Your task to perform on an android device: turn on location history Image 0: 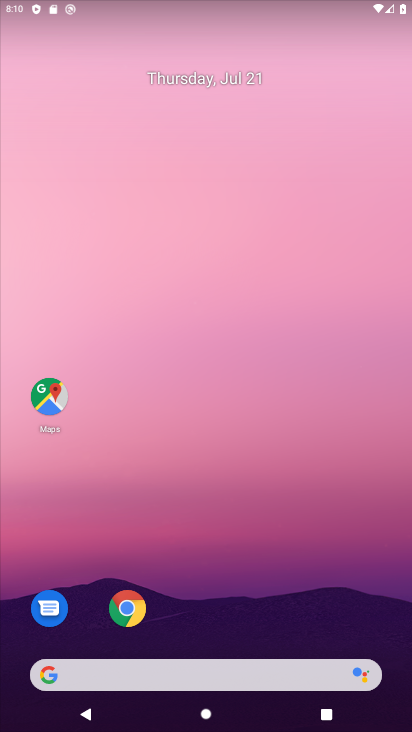
Step 0: drag from (23, 697) to (132, 190)
Your task to perform on an android device: turn on location history Image 1: 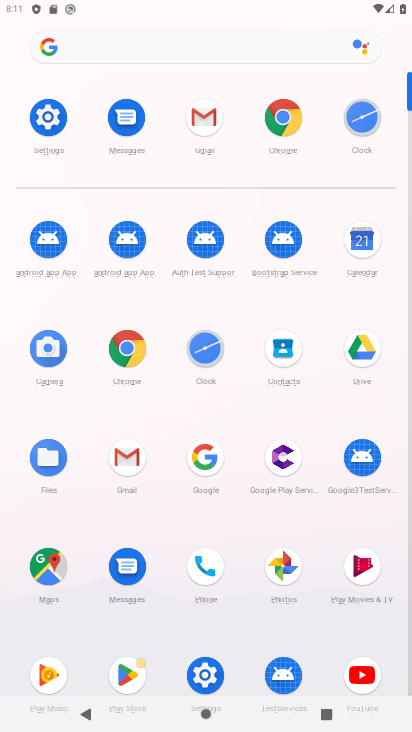
Step 1: click (195, 668)
Your task to perform on an android device: turn on location history Image 2: 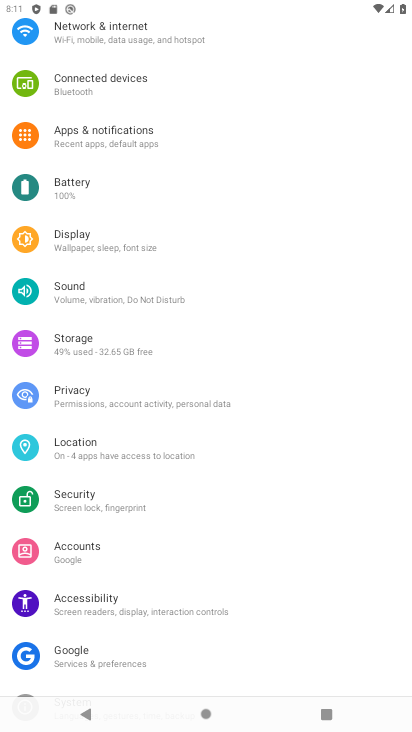
Step 2: click (89, 442)
Your task to perform on an android device: turn on location history Image 3: 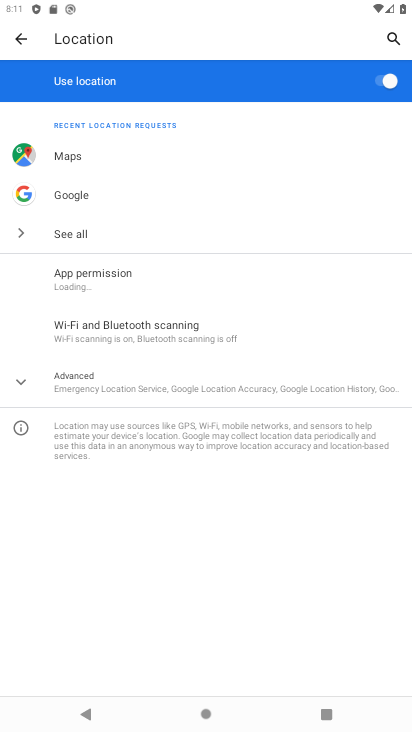
Step 3: click (118, 393)
Your task to perform on an android device: turn on location history Image 4: 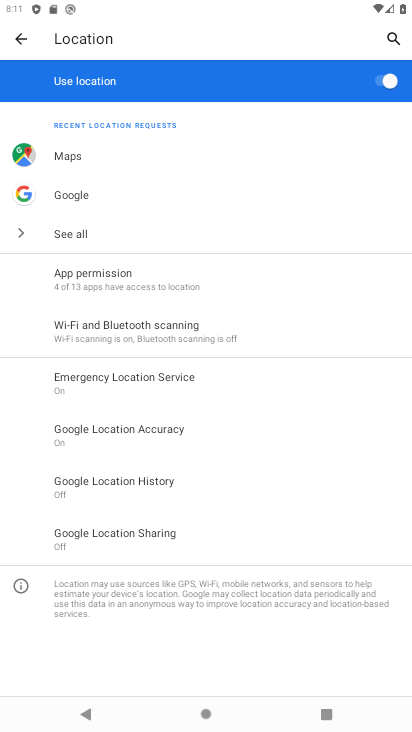
Step 4: click (115, 482)
Your task to perform on an android device: turn on location history Image 5: 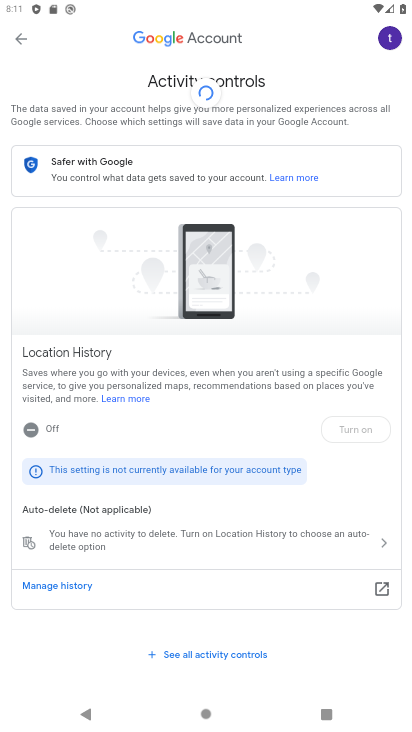
Step 5: click (351, 427)
Your task to perform on an android device: turn on location history Image 6: 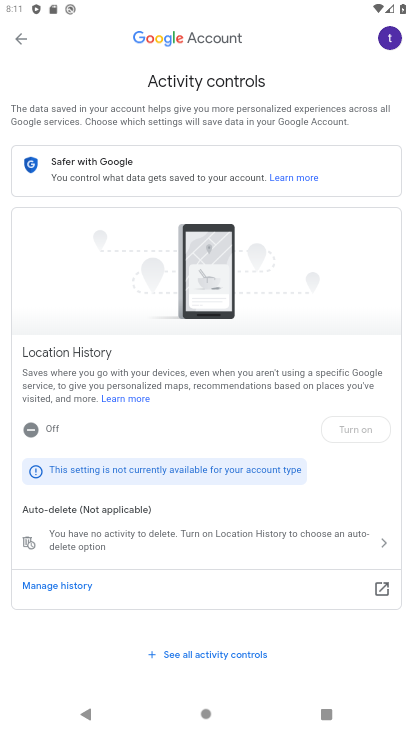
Step 6: click (333, 420)
Your task to perform on an android device: turn on location history Image 7: 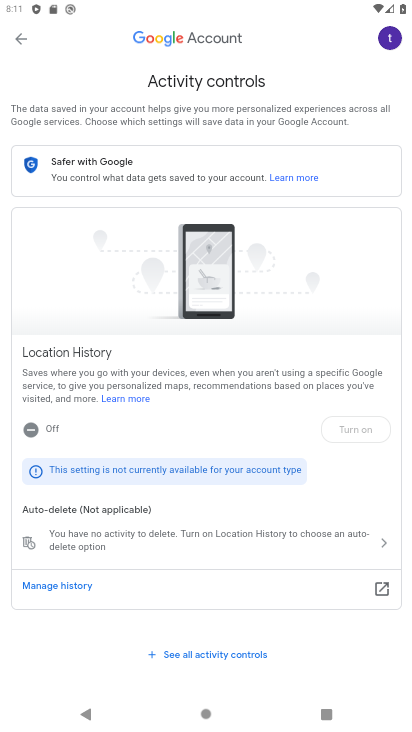
Step 7: click (348, 426)
Your task to perform on an android device: turn on location history Image 8: 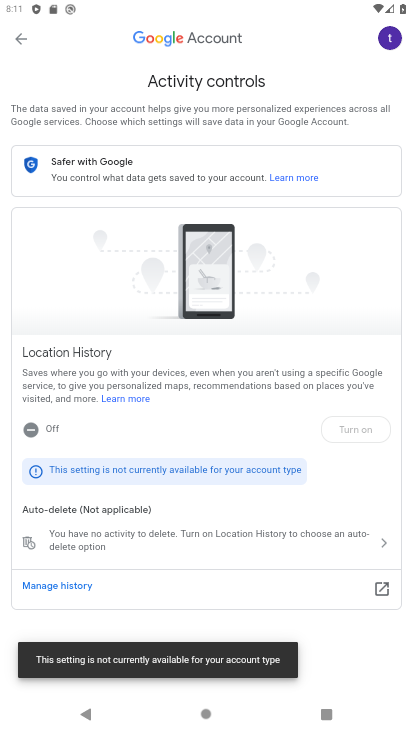
Step 8: click (358, 427)
Your task to perform on an android device: turn on location history Image 9: 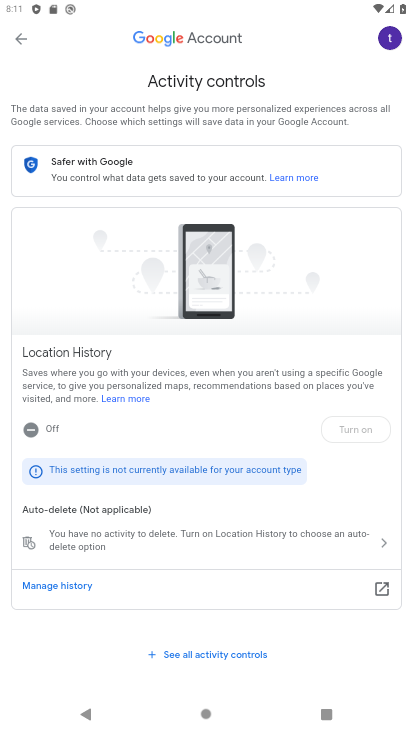
Step 9: click (327, 437)
Your task to perform on an android device: turn on location history Image 10: 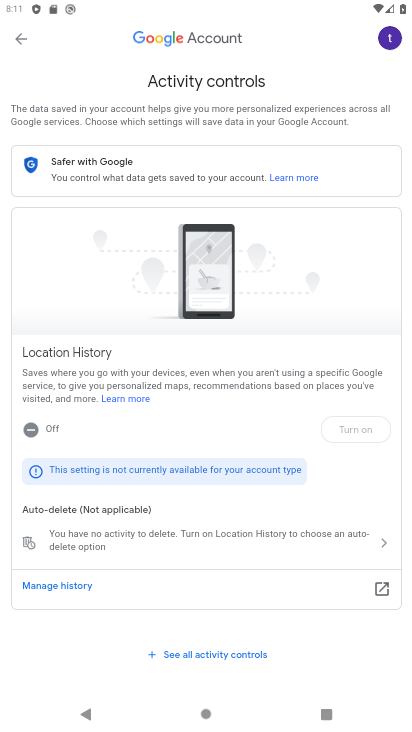
Step 10: click (348, 420)
Your task to perform on an android device: turn on location history Image 11: 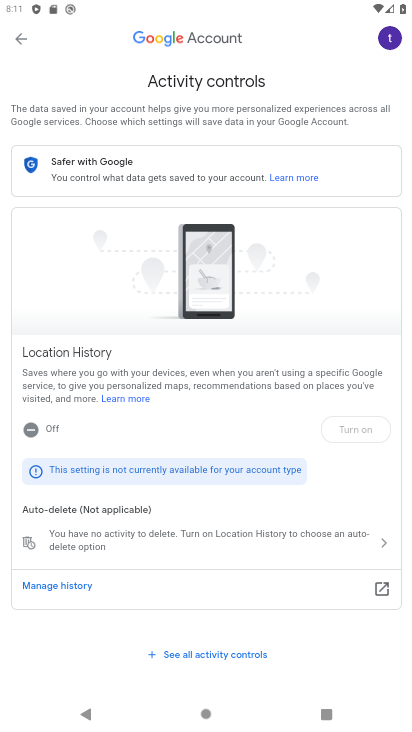
Step 11: task complete